Your task to perform on an android device: toggle location history Image 0: 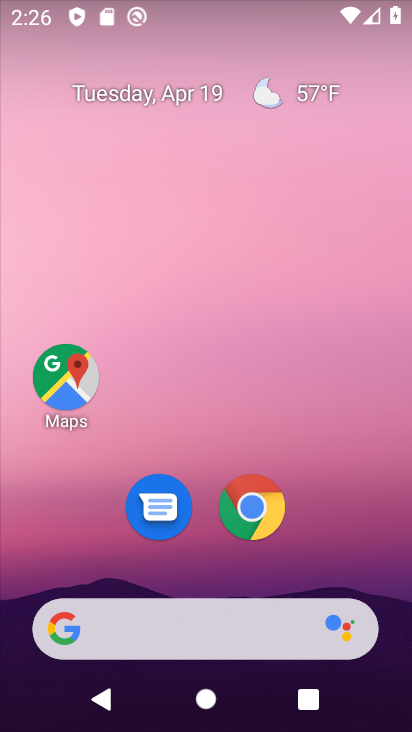
Step 0: drag from (285, 562) to (288, 132)
Your task to perform on an android device: toggle location history Image 1: 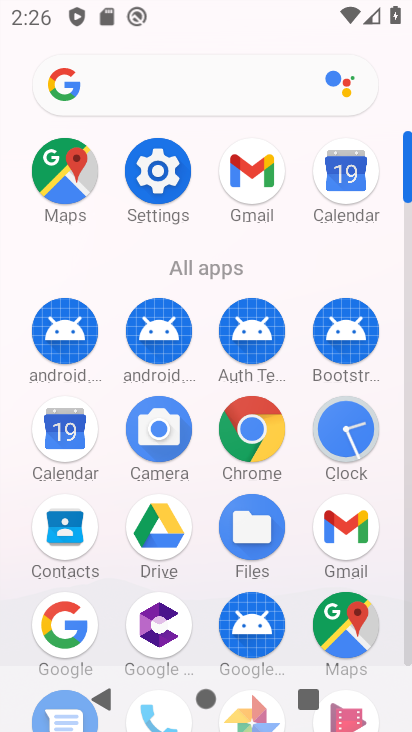
Step 1: click (166, 192)
Your task to perform on an android device: toggle location history Image 2: 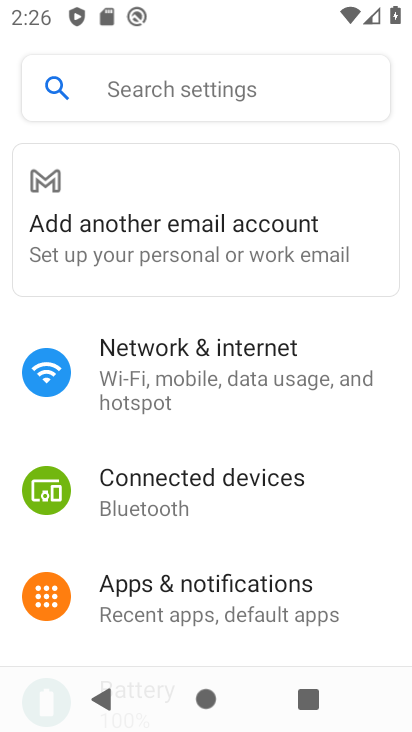
Step 2: drag from (222, 453) to (243, 103)
Your task to perform on an android device: toggle location history Image 3: 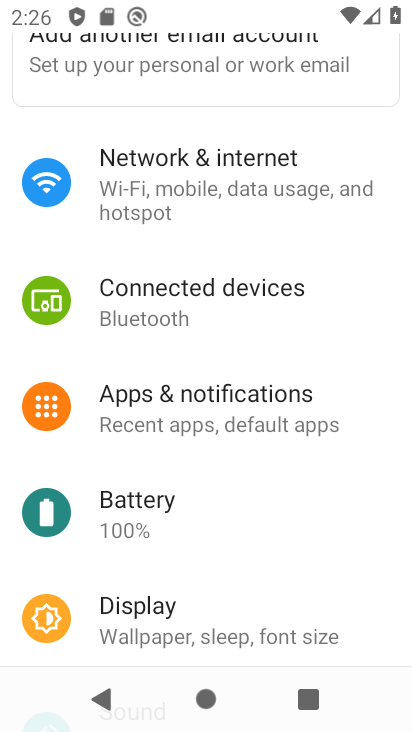
Step 3: drag from (251, 578) to (254, 125)
Your task to perform on an android device: toggle location history Image 4: 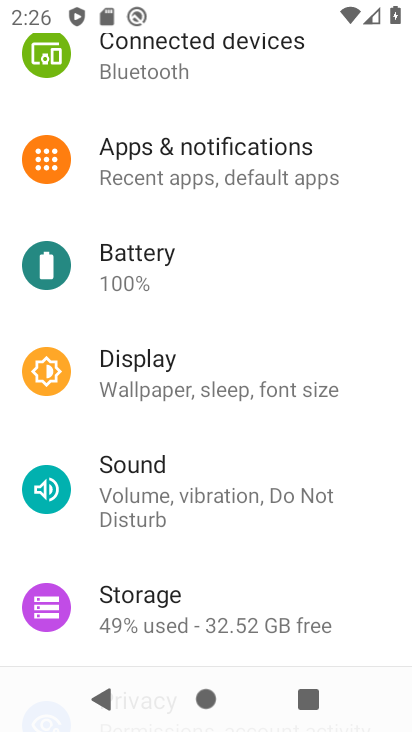
Step 4: drag from (242, 563) to (262, 151)
Your task to perform on an android device: toggle location history Image 5: 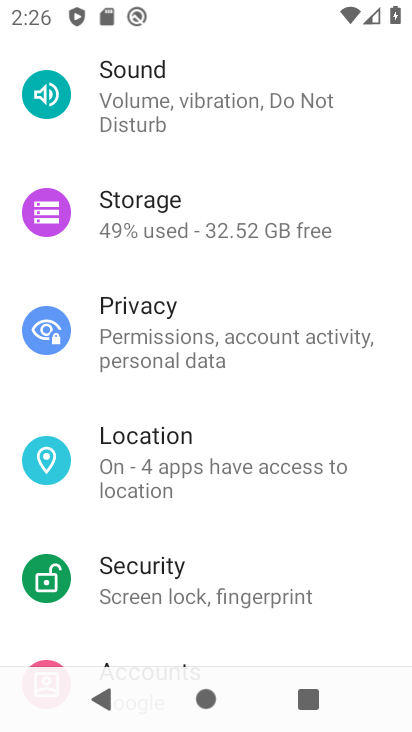
Step 5: click (222, 470)
Your task to perform on an android device: toggle location history Image 6: 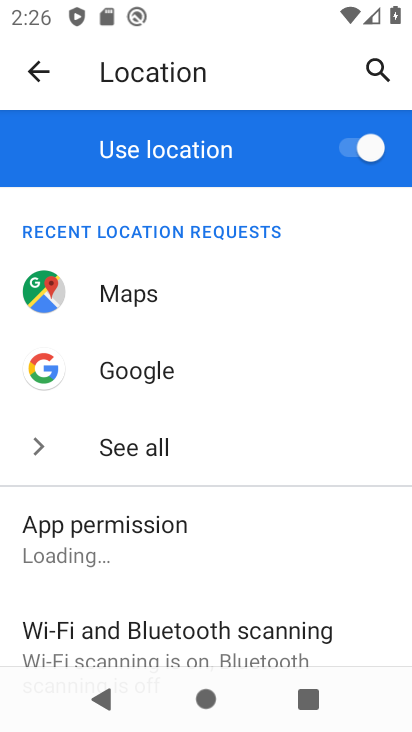
Step 6: drag from (295, 560) to (300, 134)
Your task to perform on an android device: toggle location history Image 7: 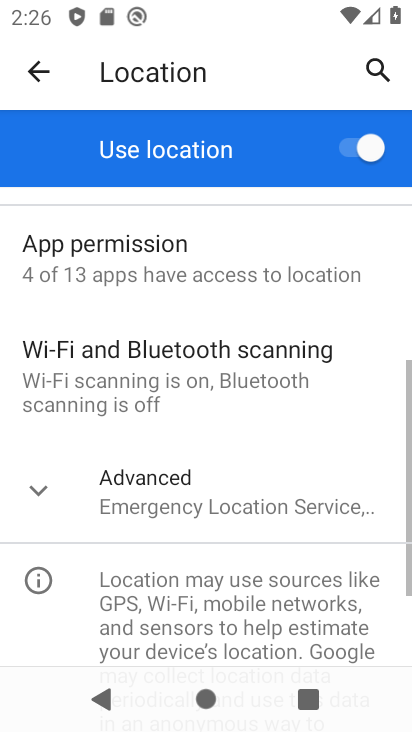
Step 7: click (195, 492)
Your task to perform on an android device: toggle location history Image 8: 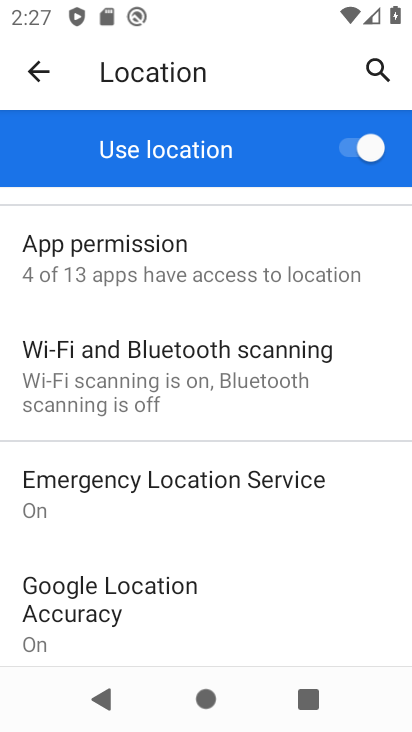
Step 8: drag from (253, 573) to (246, 234)
Your task to perform on an android device: toggle location history Image 9: 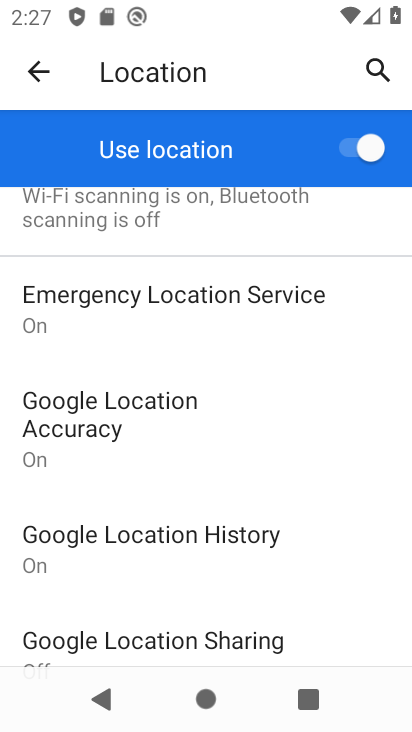
Step 9: click (228, 551)
Your task to perform on an android device: toggle location history Image 10: 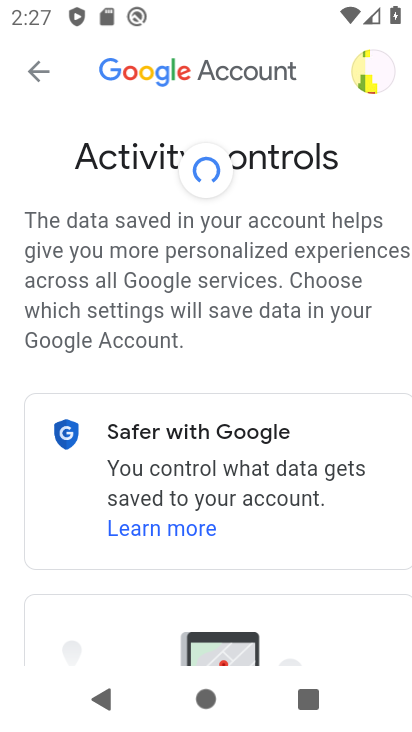
Step 10: drag from (276, 617) to (311, 107)
Your task to perform on an android device: toggle location history Image 11: 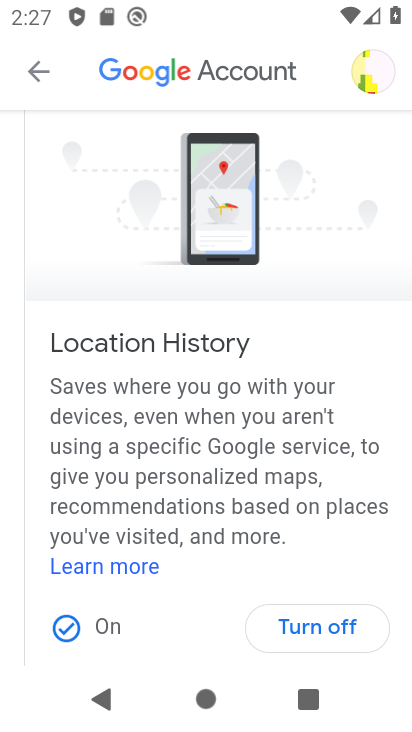
Step 11: click (316, 630)
Your task to perform on an android device: toggle location history Image 12: 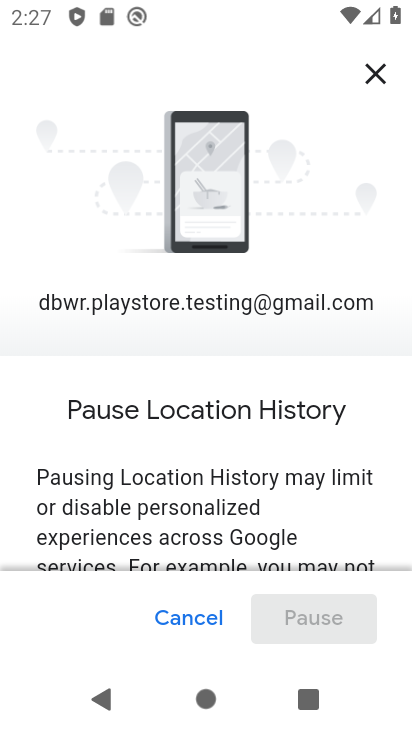
Step 12: drag from (296, 479) to (292, 111)
Your task to perform on an android device: toggle location history Image 13: 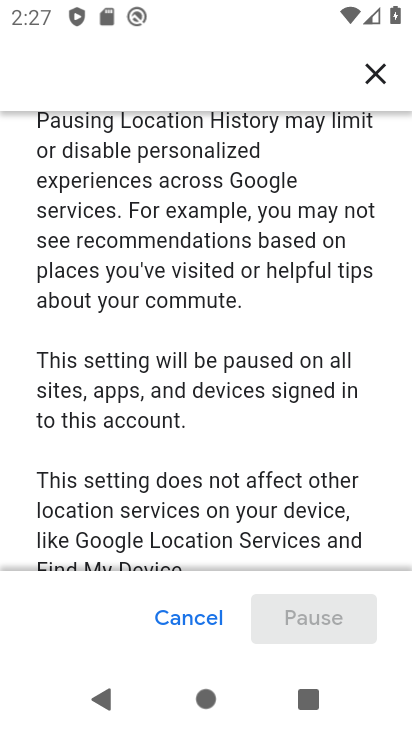
Step 13: drag from (277, 524) to (287, 154)
Your task to perform on an android device: toggle location history Image 14: 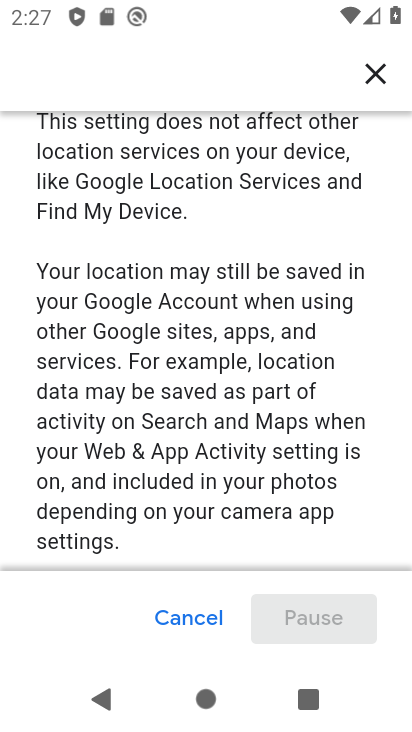
Step 14: drag from (267, 570) to (271, 123)
Your task to perform on an android device: toggle location history Image 15: 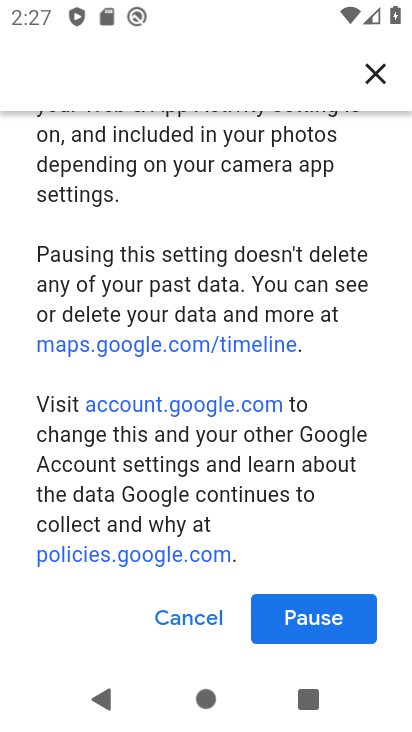
Step 15: click (324, 607)
Your task to perform on an android device: toggle location history Image 16: 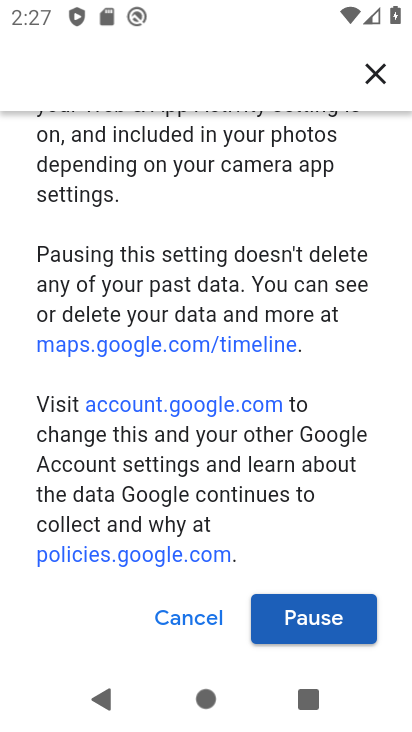
Step 16: click (340, 621)
Your task to perform on an android device: toggle location history Image 17: 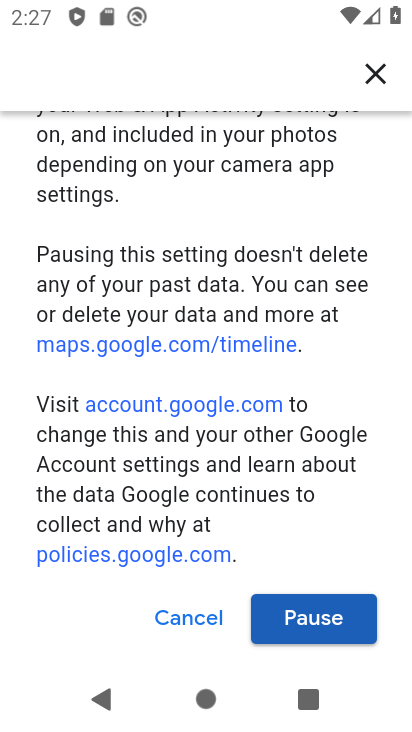
Step 17: click (331, 625)
Your task to perform on an android device: toggle location history Image 18: 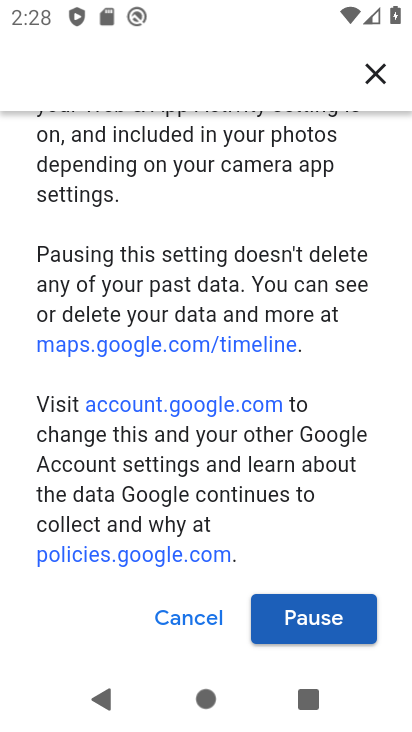
Step 18: click (294, 627)
Your task to perform on an android device: toggle location history Image 19: 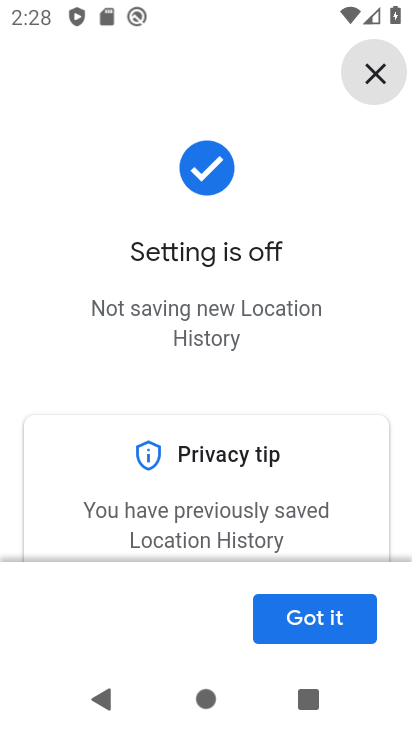
Step 19: click (294, 628)
Your task to perform on an android device: toggle location history Image 20: 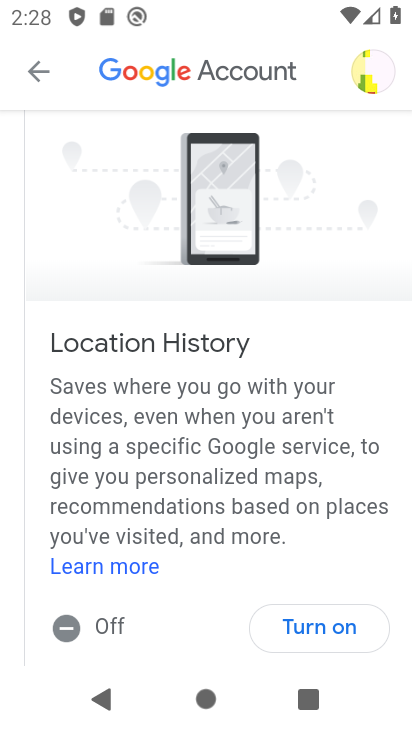
Step 20: task complete